Your task to perform on an android device: What's the weather going to be this weekend? Image 0: 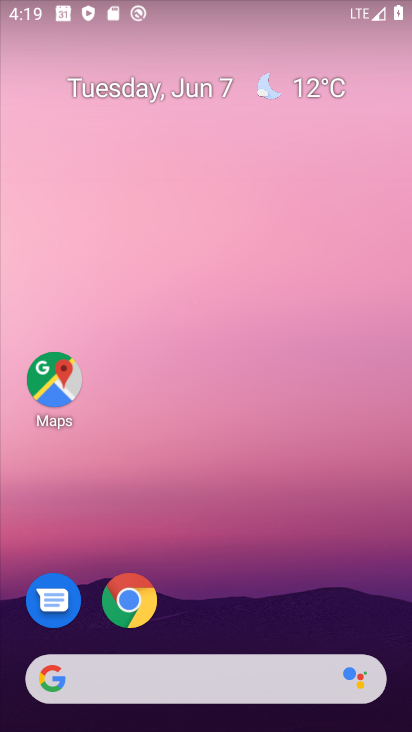
Step 0: click (131, 597)
Your task to perform on an android device: What's the weather going to be this weekend? Image 1: 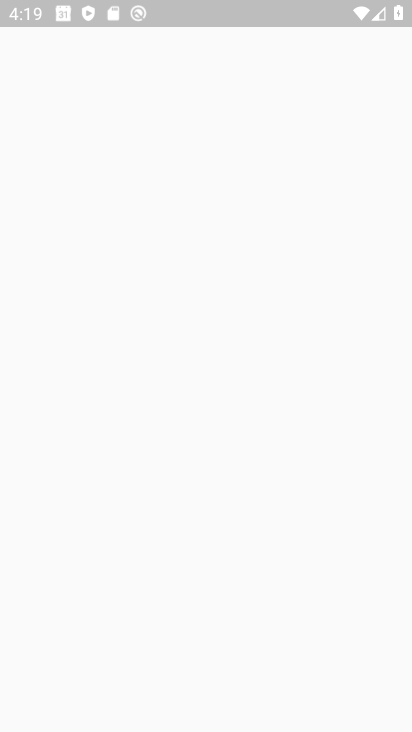
Step 1: press home button
Your task to perform on an android device: What's the weather going to be this weekend? Image 2: 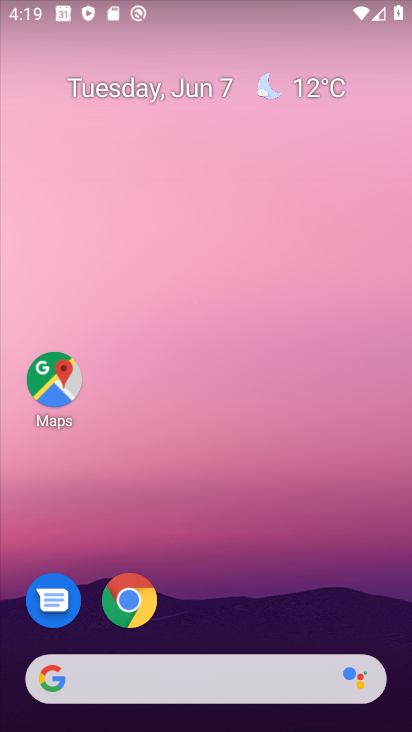
Step 2: drag from (177, 649) to (174, 142)
Your task to perform on an android device: What's the weather going to be this weekend? Image 3: 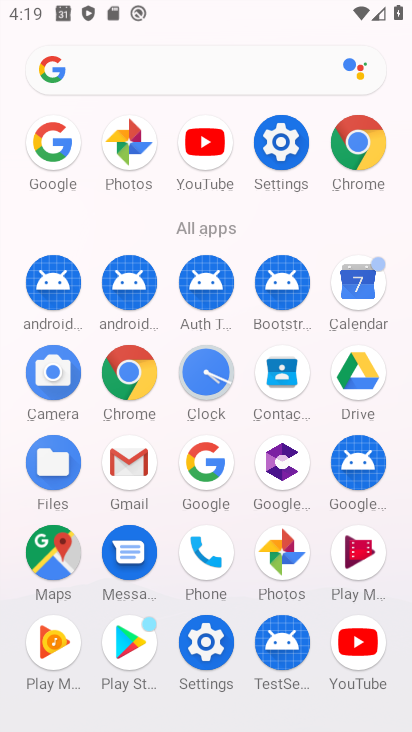
Step 3: click (198, 463)
Your task to perform on an android device: What's the weather going to be this weekend? Image 4: 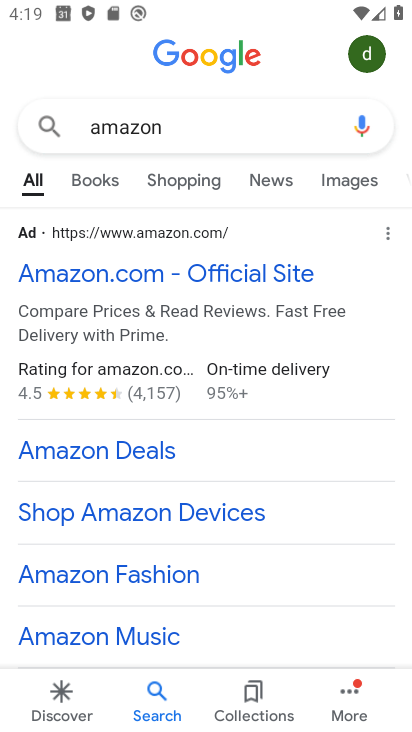
Step 4: click (161, 121)
Your task to perform on an android device: What's the weather going to be this weekend? Image 5: 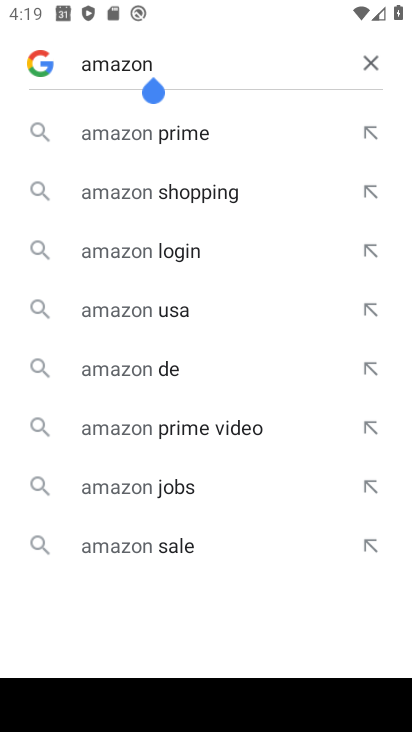
Step 5: click (364, 63)
Your task to perform on an android device: What's the weather going to be this weekend? Image 6: 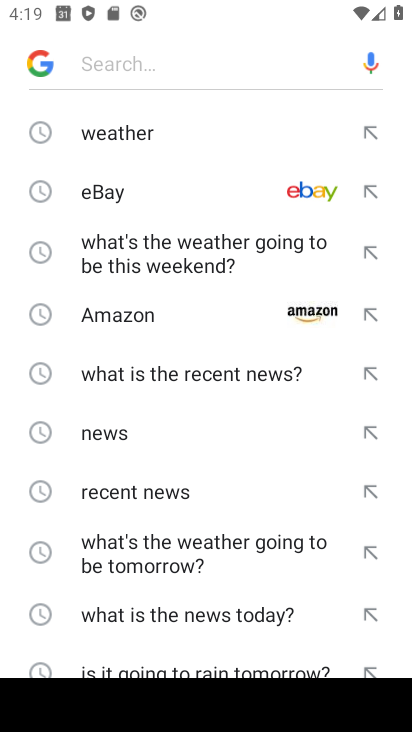
Step 6: click (185, 258)
Your task to perform on an android device: What's the weather going to be this weekend? Image 7: 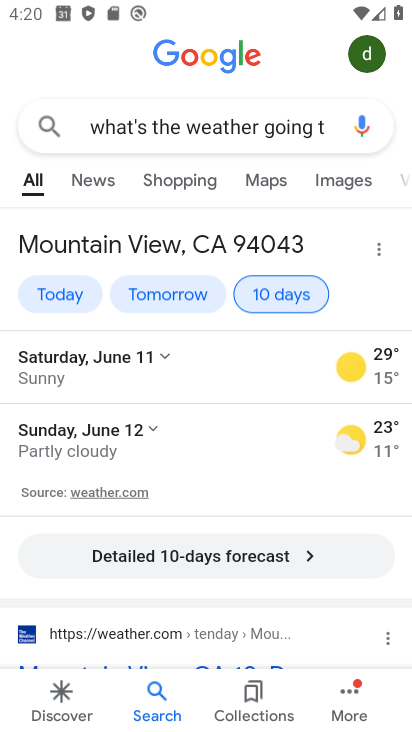
Step 7: click (183, 561)
Your task to perform on an android device: What's the weather going to be this weekend? Image 8: 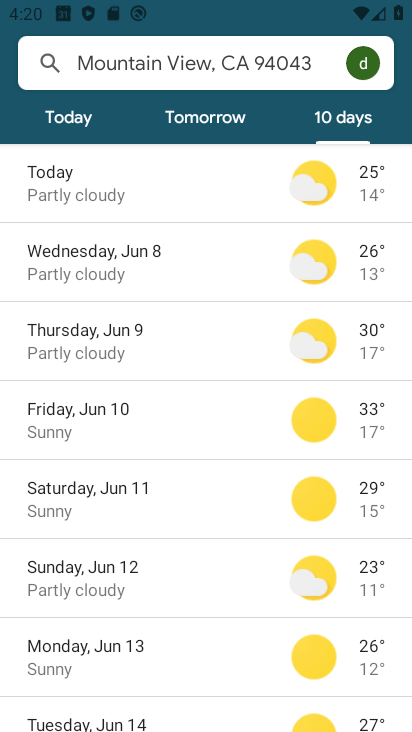
Step 8: task complete